Your task to perform on an android device: add a label to a message in the gmail app Image 0: 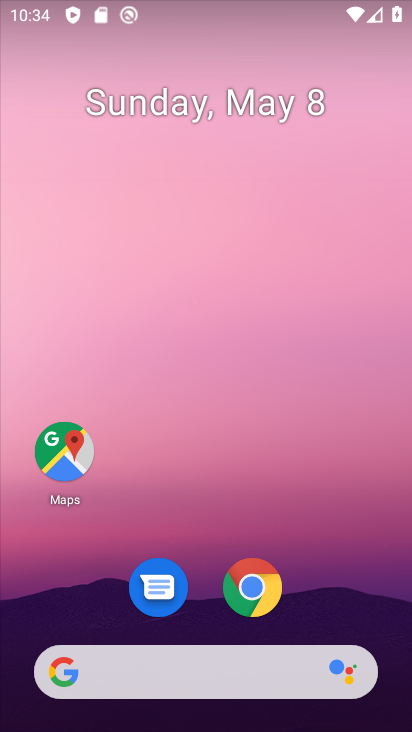
Step 0: drag from (372, 590) to (82, 132)
Your task to perform on an android device: add a label to a message in the gmail app Image 1: 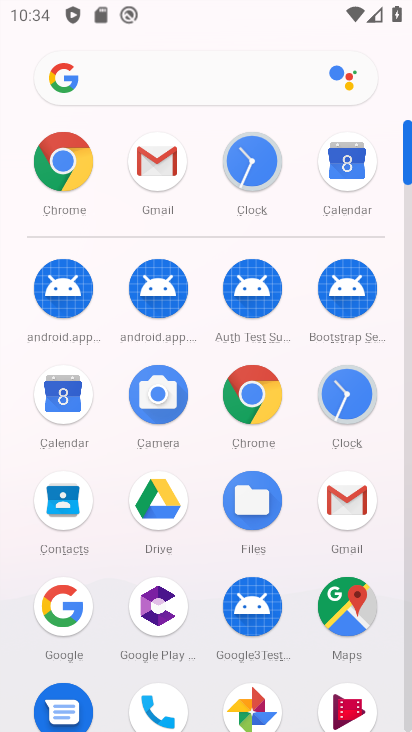
Step 1: click (342, 490)
Your task to perform on an android device: add a label to a message in the gmail app Image 2: 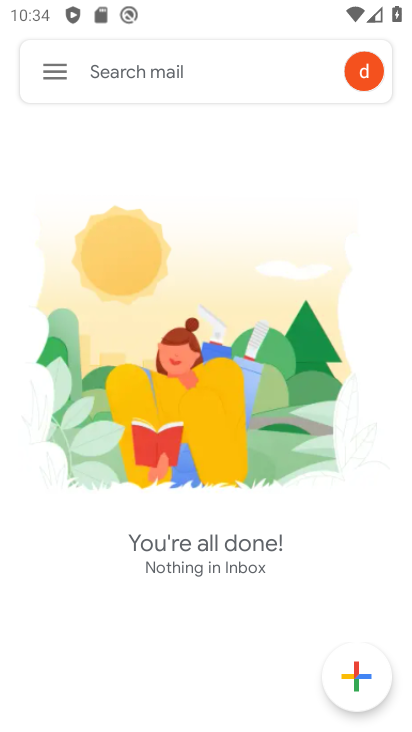
Step 2: click (45, 73)
Your task to perform on an android device: add a label to a message in the gmail app Image 3: 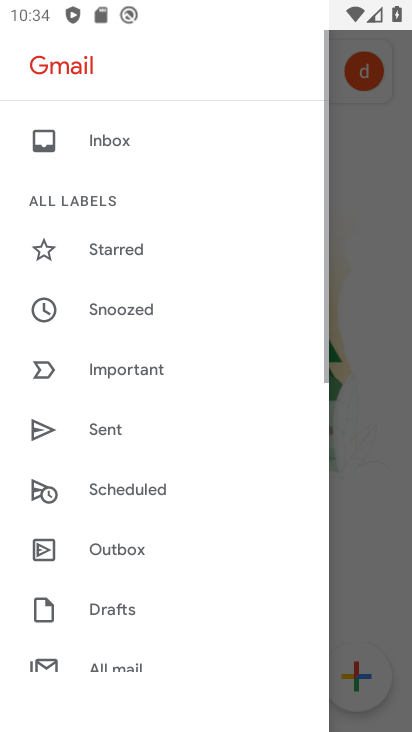
Step 3: click (45, 74)
Your task to perform on an android device: add a label to a message in the gmail app Image 4: 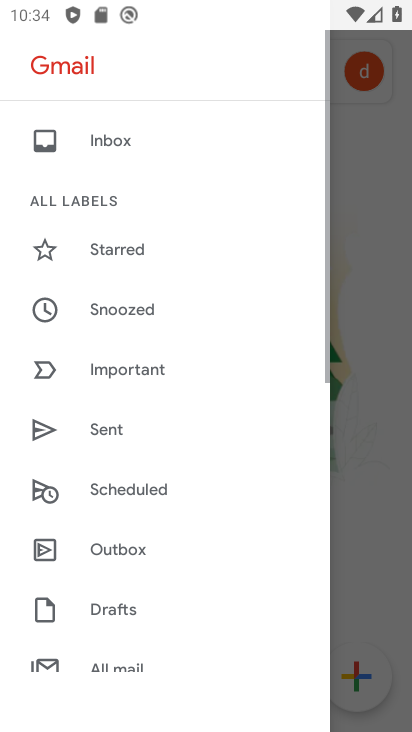
Step 4: click (45, 74)
Your task to perform on an android device: add a label to a message in the gmail app Image 5: 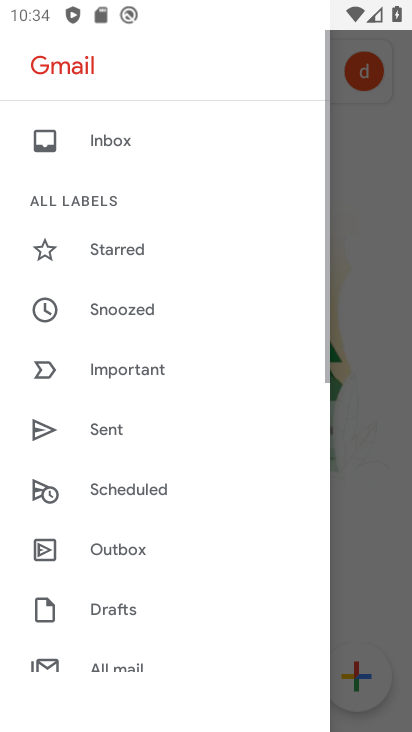
Step 5: drag from (45, 74) to (128, 351)
Your task to perform on an android device: add a label to a message in the gmail app Image 6: 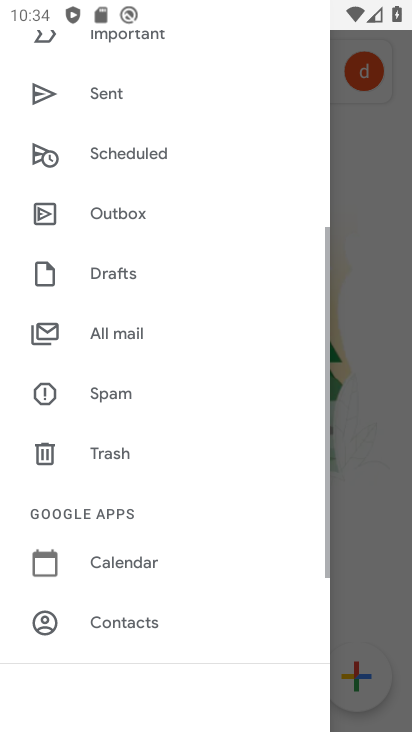
Step 6: drag from (137, 397) to (130, 206)
Your task to perform on an android device: add a label to a message in the gmail app Image 7: 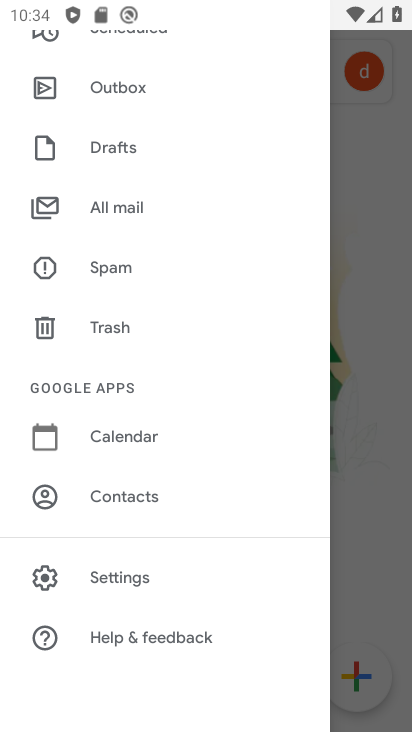
Step 7: click (124, 205)
Your task to perform on an android device: add a label to a message in the gmail app Image 8: 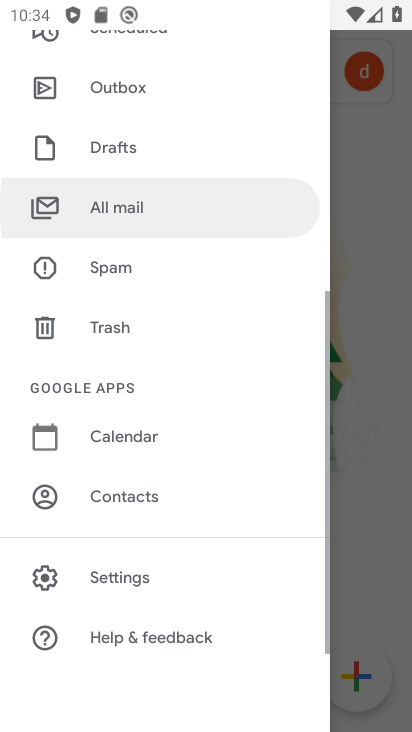
Step 8: click (122, 206)
Your task to perform on an android device: add a label to a message in the gmail app Image 9: 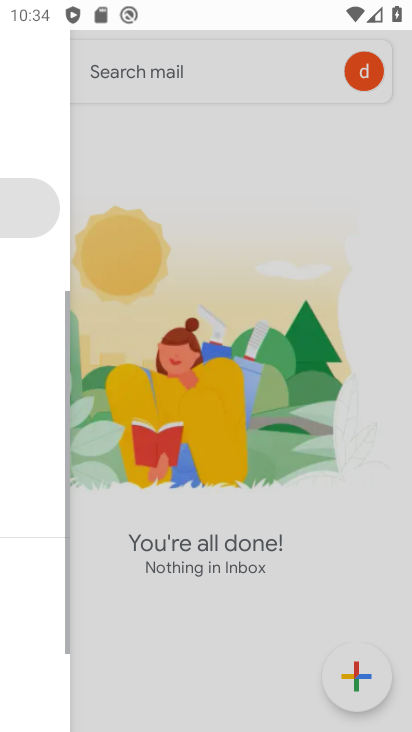
Step 9: click (128, 208)
Your task to perform on an android device: add a label to a message in the gmail app Image 10: 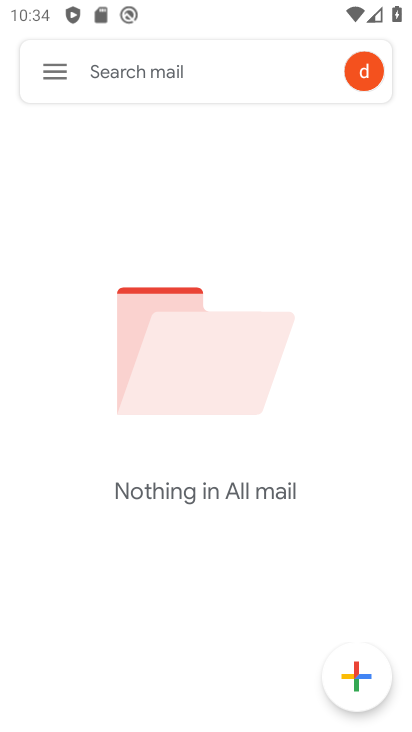
Step 10: task complete